Your task to perform on an android device: Open the web browser Image 0: 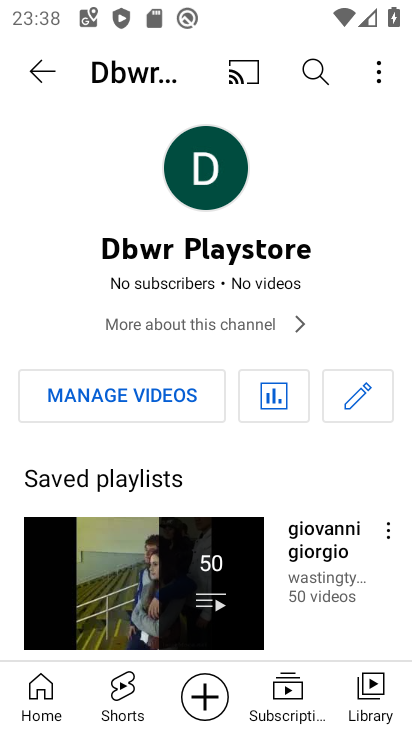
Step 0: press home button
Your task to perform on an android device: Open the web browser Image 1: 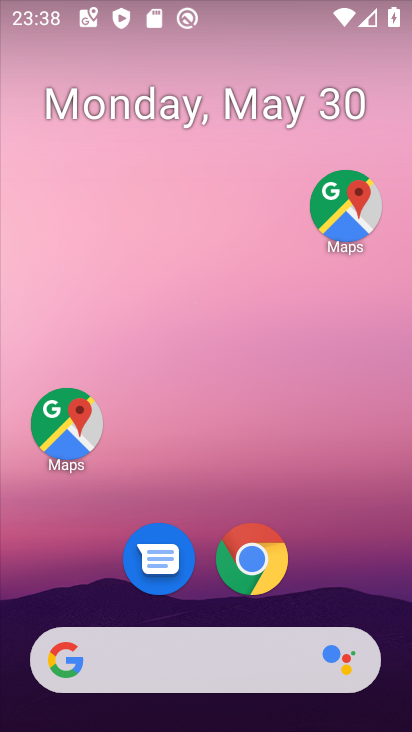
Step 1: click (250, 555)
Your task to perform on an android device: Open the web browser Image 2: 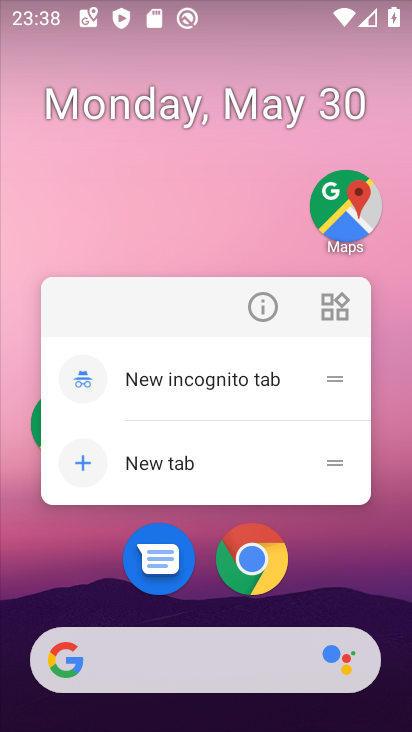
Step 2: click (250, 555)
Your task to perform on an android device: Open the web browser Image 3: 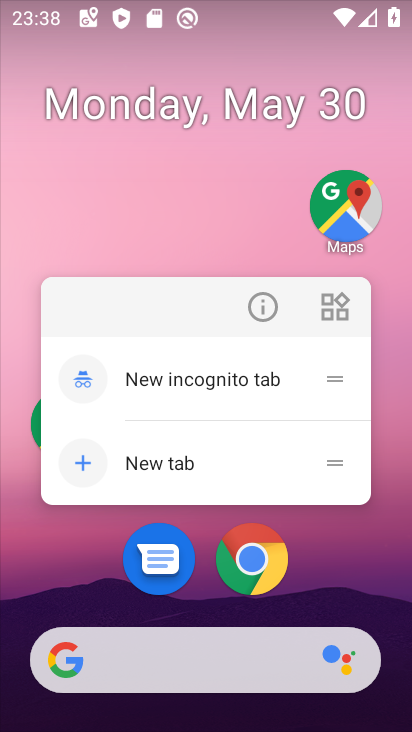
Step 3: click (308, 565)
Your task to perform on an android device: Open the web browser Image 4: 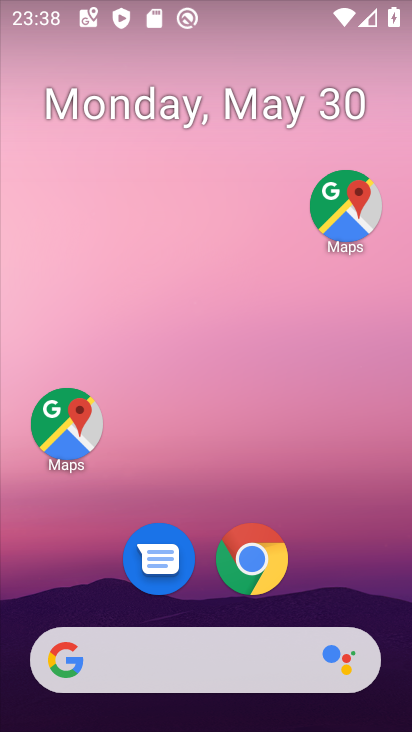
Step 4: drag from (339, 574) to (336, 29)
Your task to perform on an android device: Open the web browser Image 5: 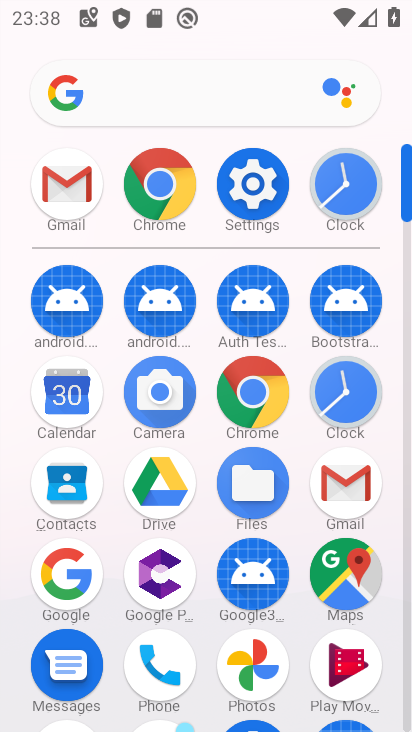
Step 5: click (255, 398)
Your task to perform on an android device: Open the web browser Image 6: 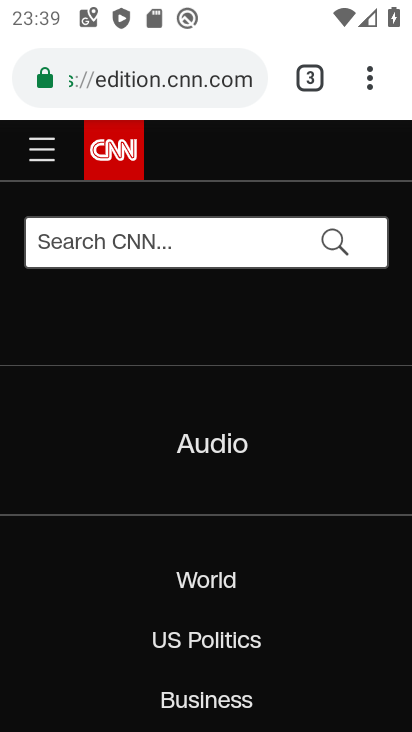
Step 6: task complete